Your task to perform on an android device: Open calendar and show me the fourth week of next month Image 0: 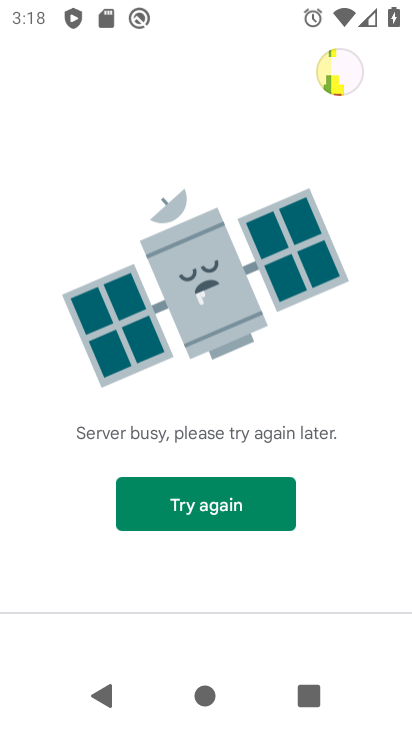
Step 0: press home button
Your task to perform on an android device: Open calendar and show me the fourth week of next month Image 1: 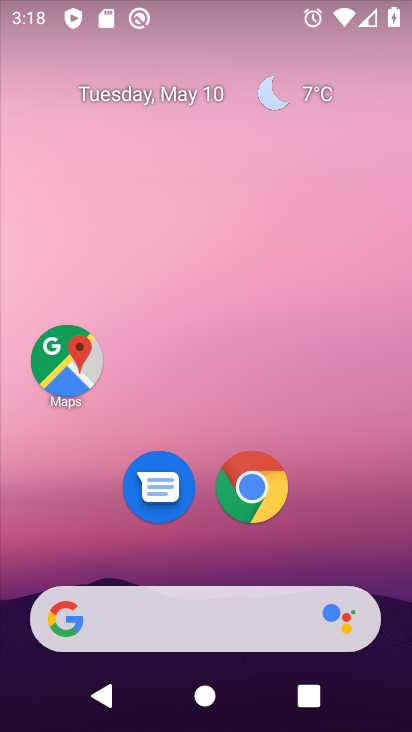
Step 1: drag from (330, 505) to (294, 133)
Your task to perform on an android device: Open calendar and show me the fourth week of next month Image 2: 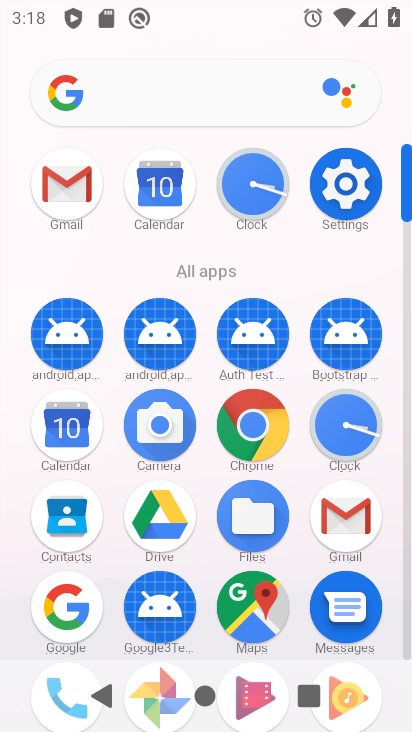
Step 2: click (60, 428)
Your task to perform on an android device: Open calendar and show me the fourth week of next month Image 3: 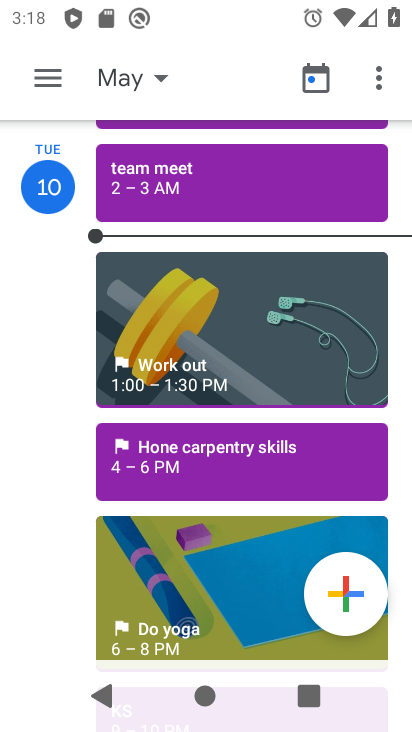
Step 3: click (116, 78)
Your task to perform on an android device: Open calendar and show me the fourth week of next month Image 4: 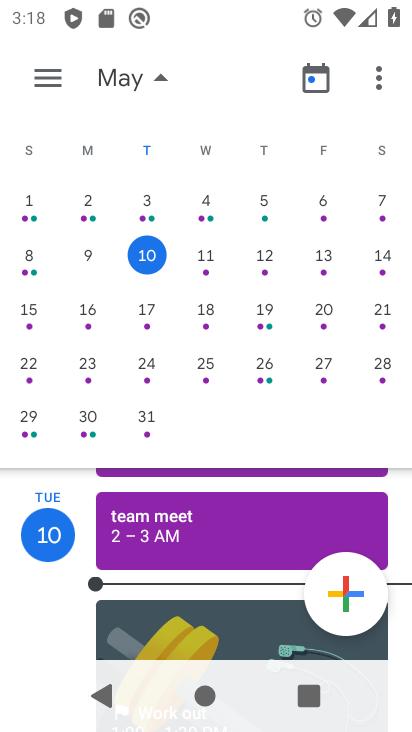
Step 4: drag from (358, 292) to (2, 234)
Your task to perform on an android device: Open calendar and show me the fourth week of next month Image 5: 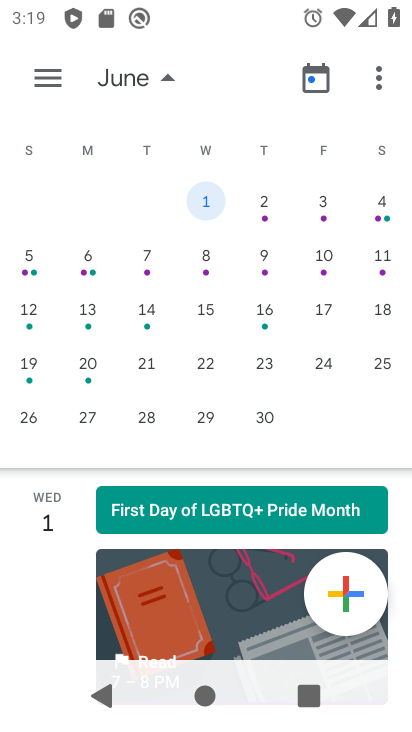
Step 5: click (89, 416)
Your task to perform on an android device: Open calendar and show me the fourth week of next month Image 6: 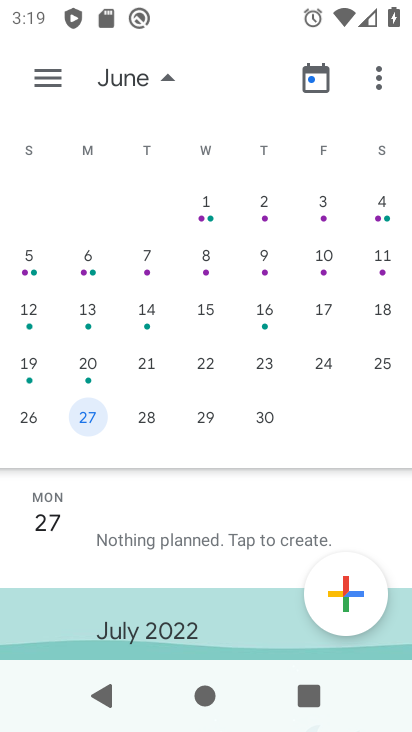
Step 6: task complete